Your task to perform on an android device: toggle priority inbox in the gmail app Image 0: 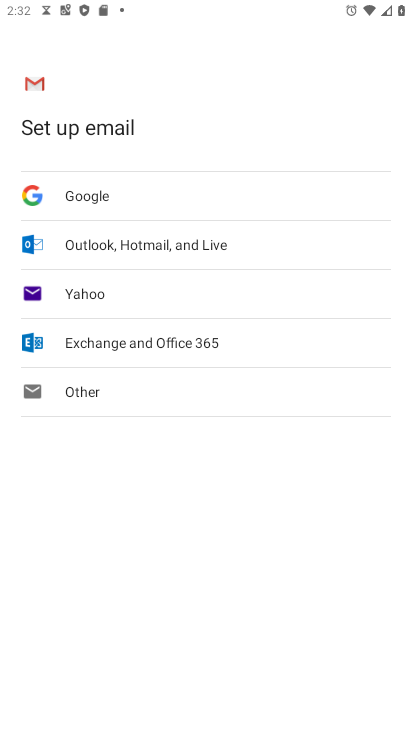
Step 0: press back button
Your task to perform on an android device: toggle priority inbox in the gmail app Image 1: 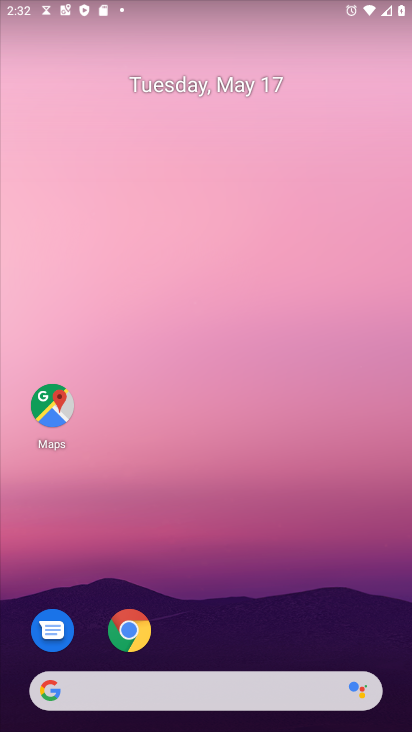
Step 1: drag from (301, 706) to (229, 248)
Your task to perform on an android device: toggle priority inbox in the gmail app Image 2: 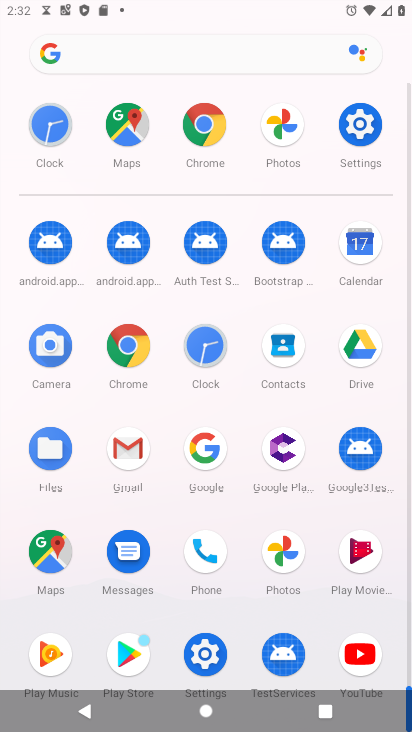
Step 2: click (122, 451)
Your task to perform on an android device: toggle priority inbox in the gmail app Image 3: 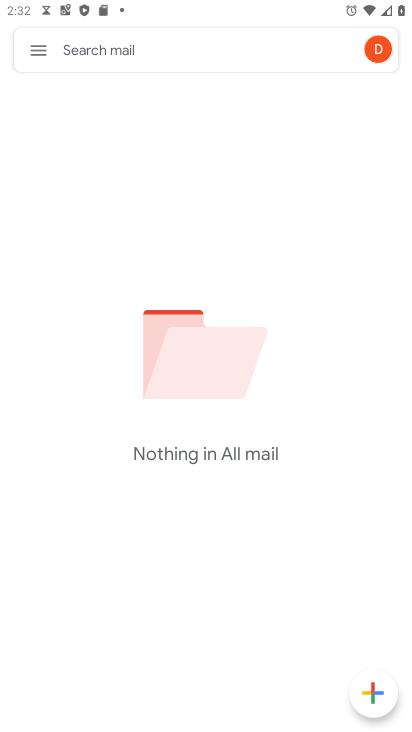
Step 3: click (35, 56)
Your task to perform on an android device: toggle priority inbox in the gmail app Image 4: 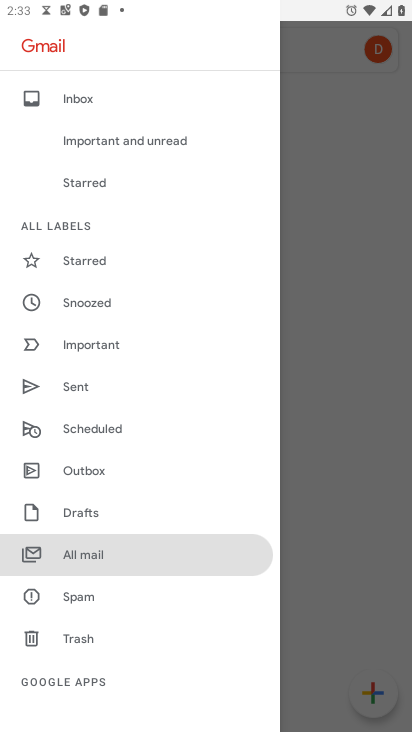
Step 4: drag from (109, 623) to (106, 97)
Your task to perform on an android device: toggle priority inbox in the gmail app Image 5: 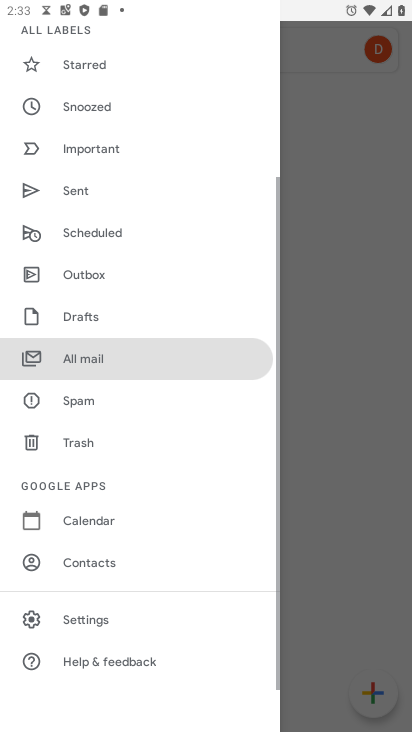
Step 5: drag from (126, 335) to (118, 147)
Your task to perform on an android device: toggle priority inbox in the gmail app Image 6: 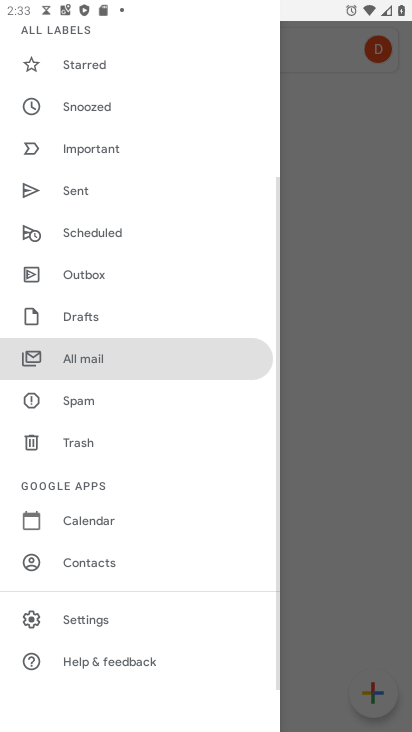
Step 6: click (86, 621)
Your task to perform on an android device: toggle priority inbox in the gmail app Image 7: 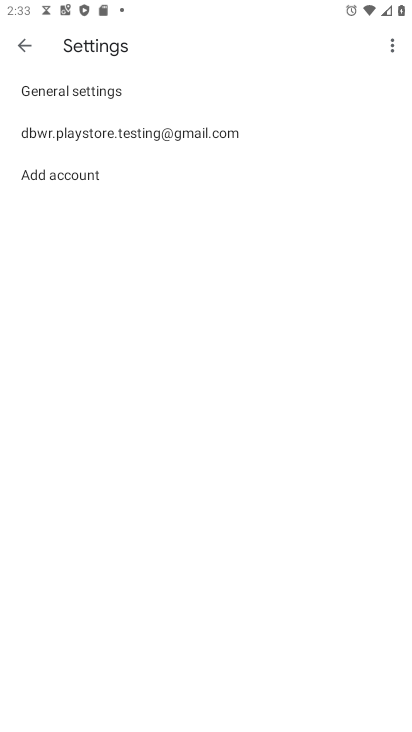
Step 7: click (79, 147)
Your task to perform on an android device: toggle priority inbox in the gmail app Image 8: 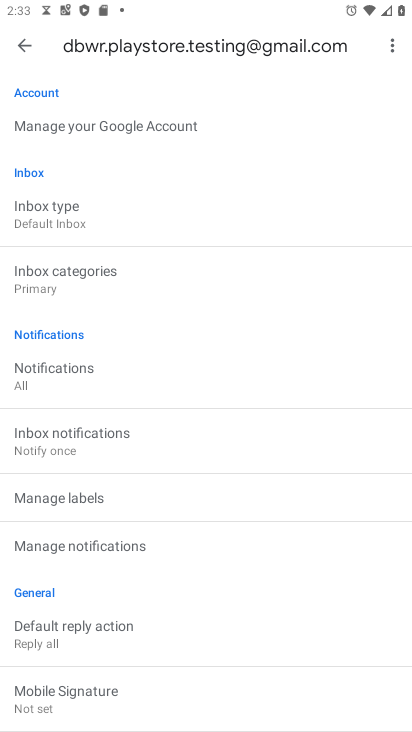
Step 8: click (43, 216)
Your task to perform on an android device: toggle priority inbox in the gmail app Image 9: 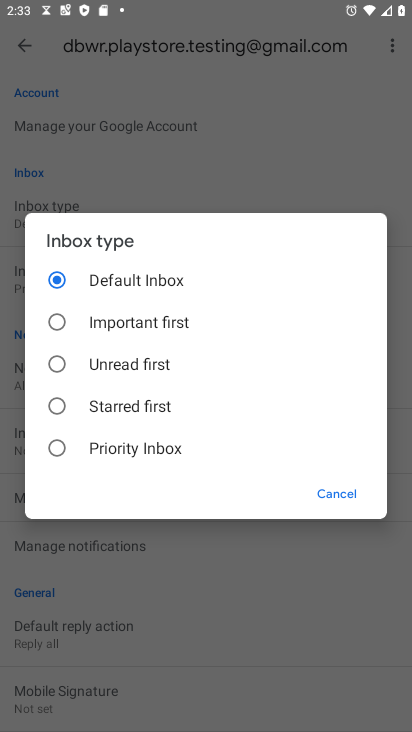
Step 9: click (55, 443)
Your task to perform on an android device: toggle priority inbox in the gmail app Image 10: 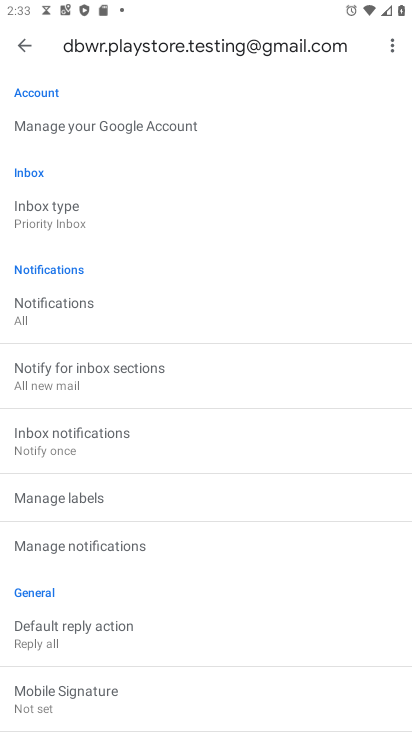
Step 10: task complete